Your task to perform on an android device: Open Google Maps Image 0: 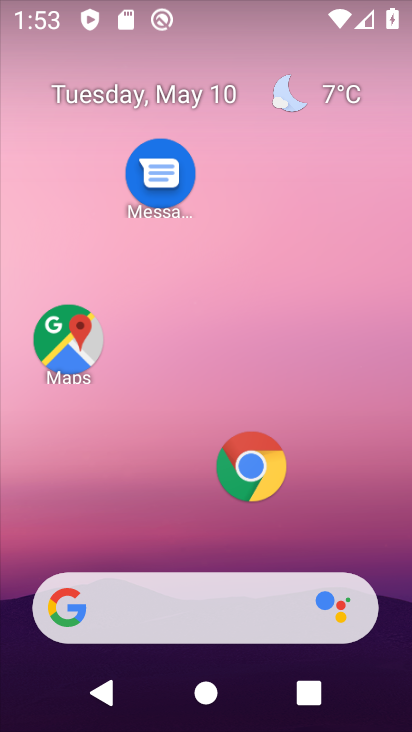
Step 0: click (81, 342)
Your task to perform on an android device: Open Google Maps Image 1: 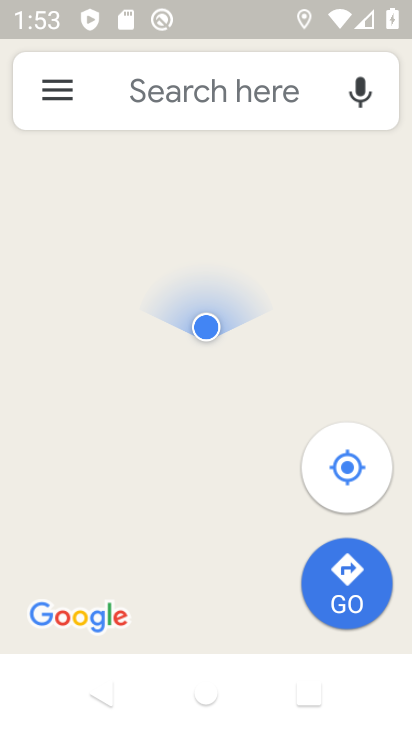
Step 1: task complete